Your task to perform on an android device: Open maps Image 0: 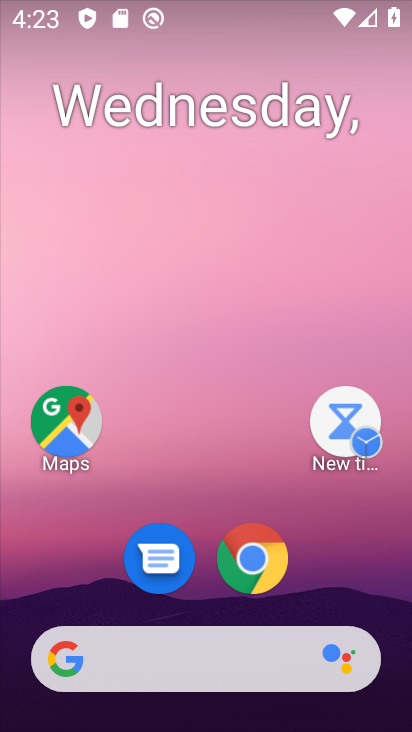
Step 0: drag from (330, 572) to (386, 200)
Your task to perform on an android device: Open maps Image 1: 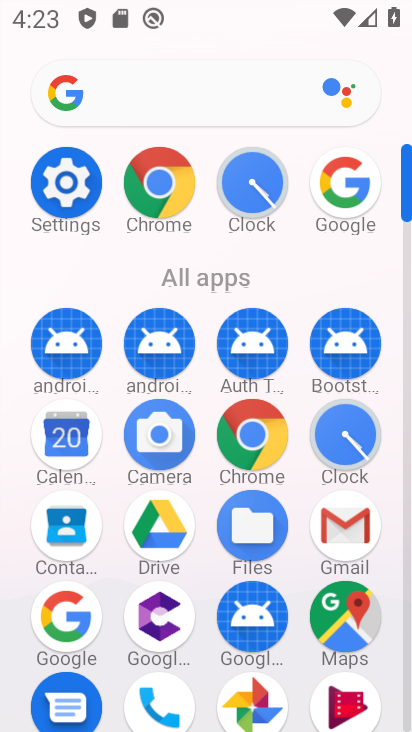
Step 1: click (342, 631)
Your task to perform on an android device: Open maps Image 2: 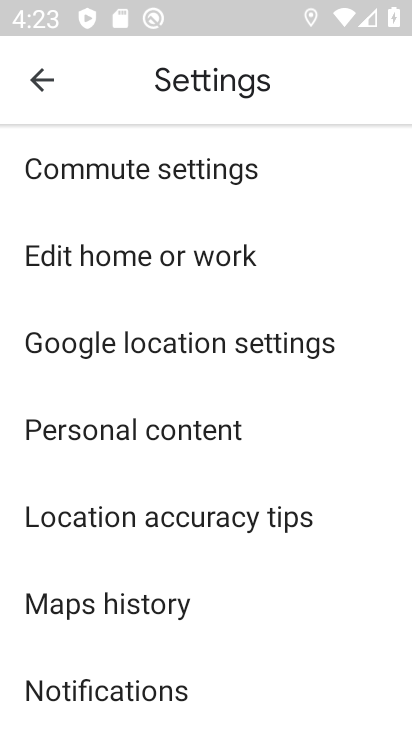
Step 2: click (51, 87)
Your task to perform on an android device: Open maps Image 3: 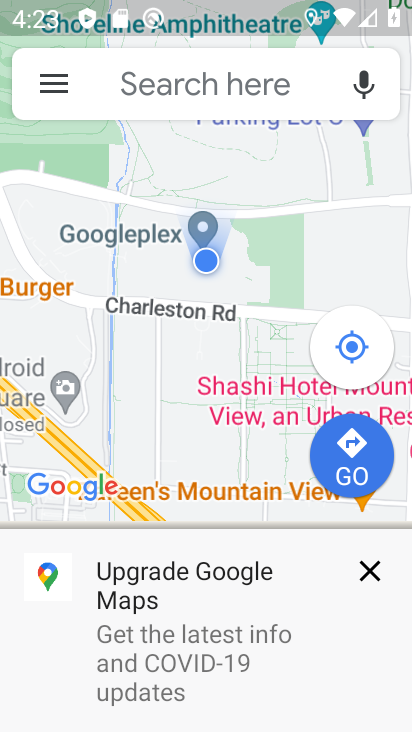
Step 3: task complete